Your task to perform on an android device: Go to Amazon Image 0: 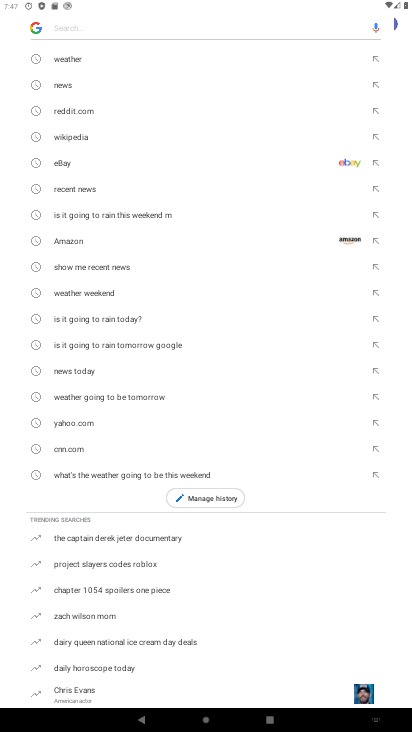
Step 0: press home button
Your task to perform on an android device: Go to Amazon Image 1: 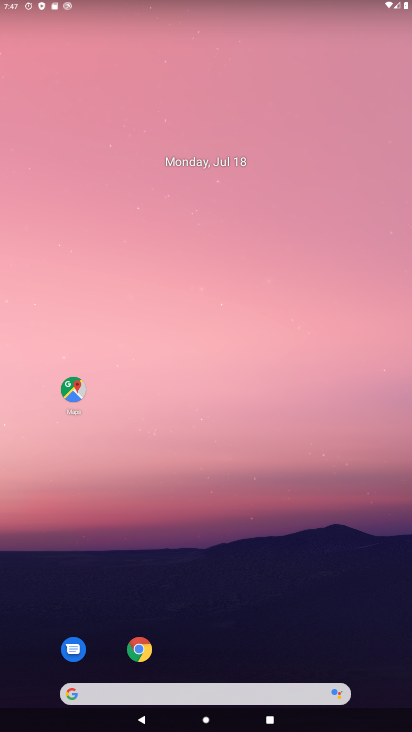
Step 1: drag from (246, 643) to (269, 116)
Your task to perform on an android device: Go to Amazon Image 2: 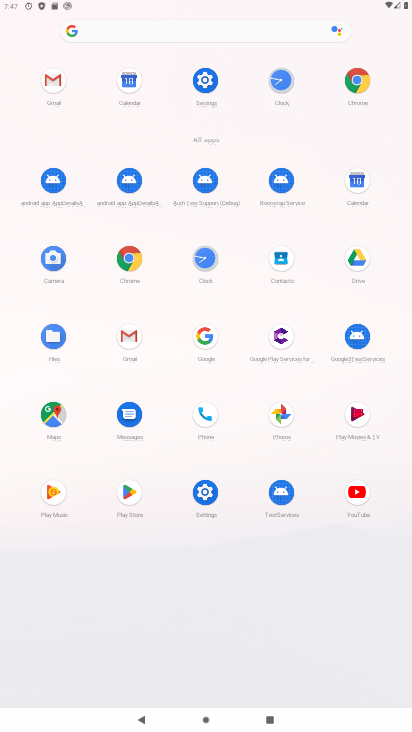
Step 2: click (132, 257)
Your task to perform on an android device: Go to Amazon Image 3: 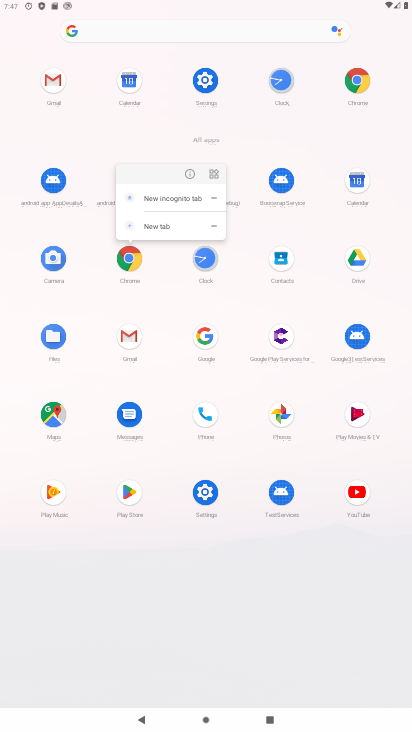
Step 3: click (128, 261)
Your task to perform on an android device: Go to Amazon Image 4: 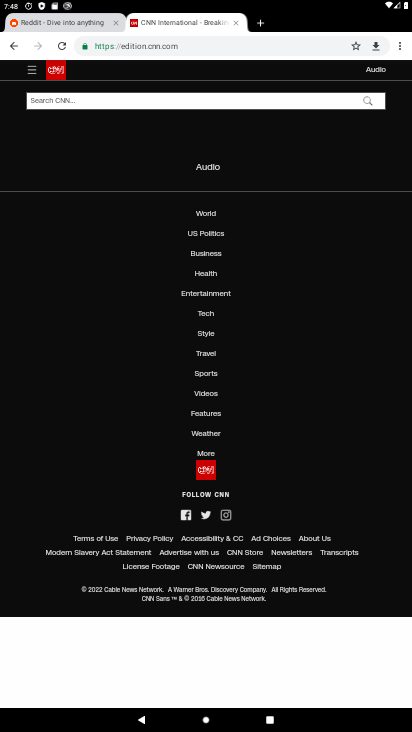
Step 4: click (269, 615)
Your task to perform on an android device: Go to Amazon Image 5: 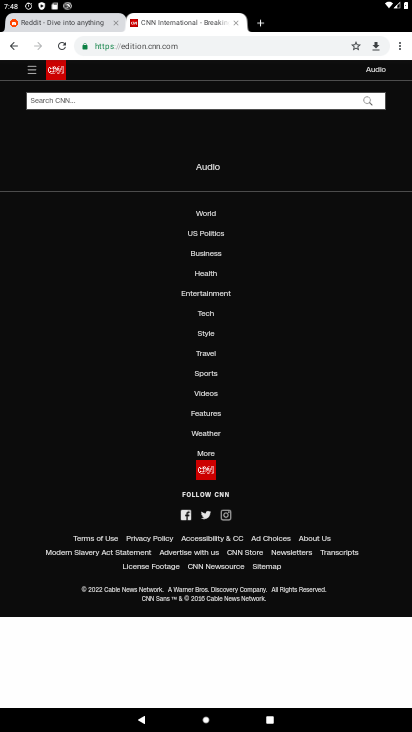
Step 5: click (232, 57)
Your task to perform on an android device: Go to Amazon Image 6: 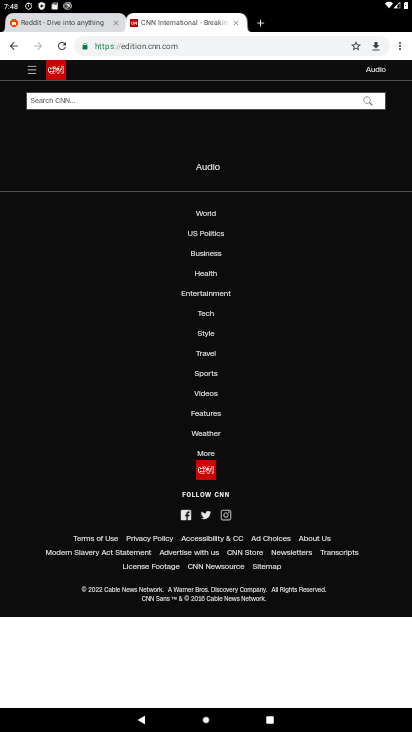
Step 6: click (232, 46)
Your task to perform on an android device: Go to Amazon Image 7: 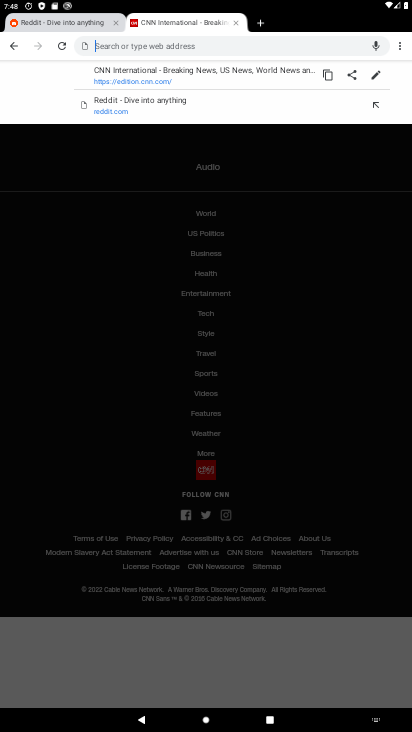
Step 7: type "amazon"
Your task to perform on an android device: Go to Amazon Image 8: 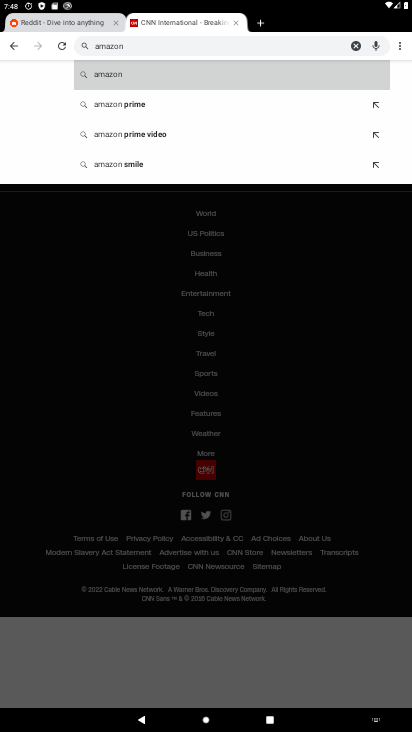
Step 8: click (195, 81)
Your task to perform on an android device: Go to Amazon Image 9: 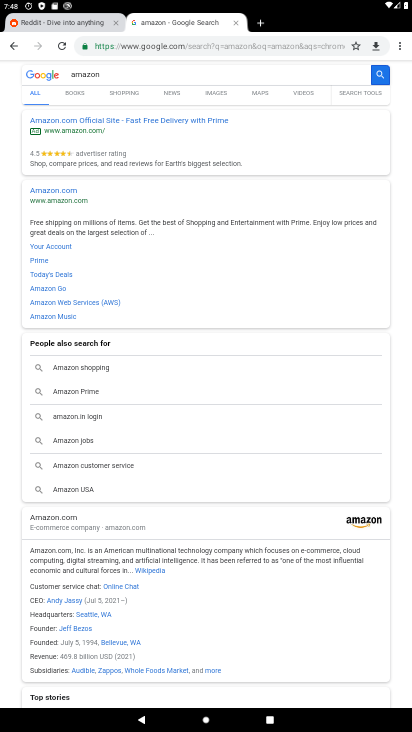
Step 9: click (49, 191)
Your task to perform on an android device: Go to Amazon Image 10: 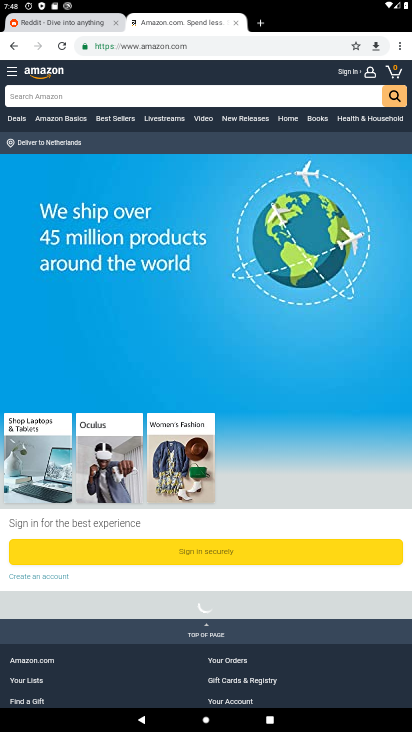
Step 10: task complete